Your task to perform on an android device: Open internet settings Image 0: 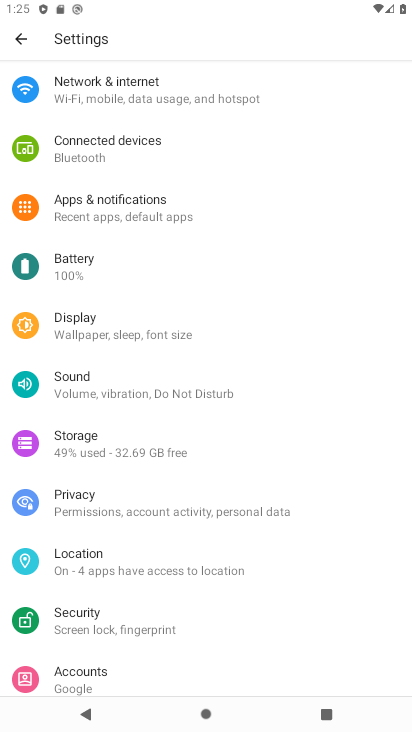
Step 0: click (165, 83)
Your task to perform on an android device: Open internet settings Image 1: 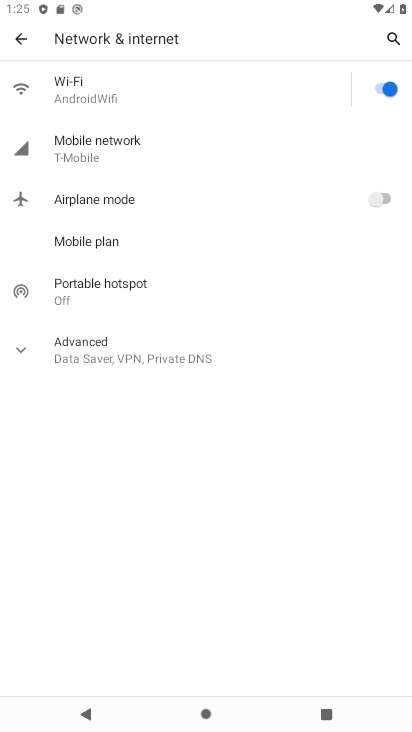
Step 1: click (201, 164)
Your task to perform on an android device: Open internet settings Image 2: 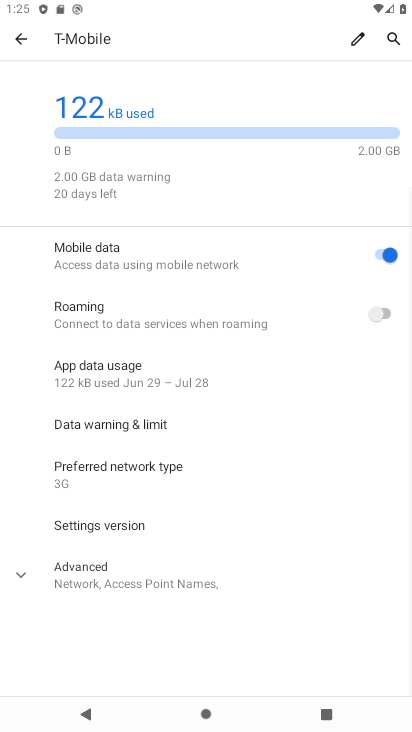
Step 2: task complete